Your task to perform on an android device: check storage Image 0: 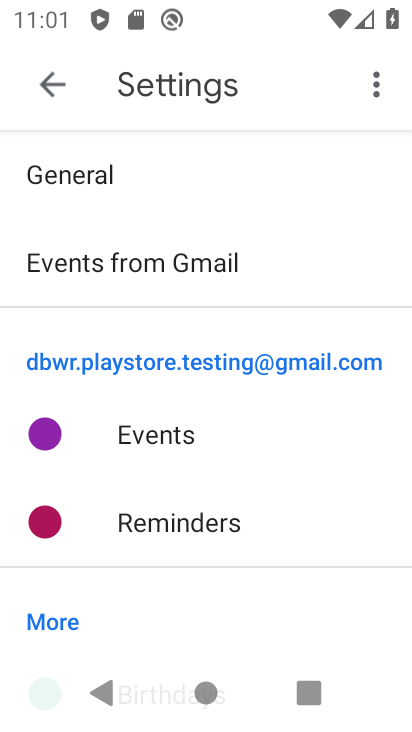
Step 0: press home button
Your task to perform on an android device: check storage Image 1: 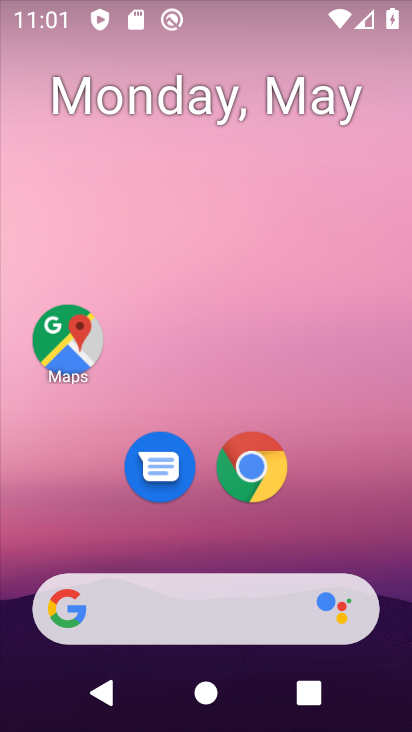
Step 1: drag from (318, 519) to (241, 63)
Your task to perform on an android device: check storage Image 2: 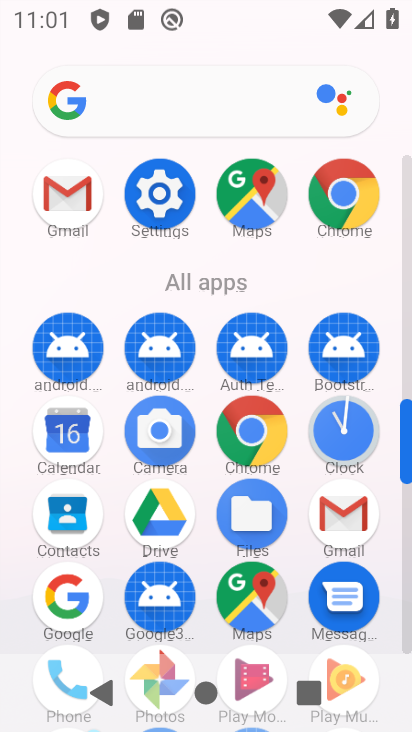
Step 2: click (185, 225)
Your task to perform on an android device: check storage Image 3: 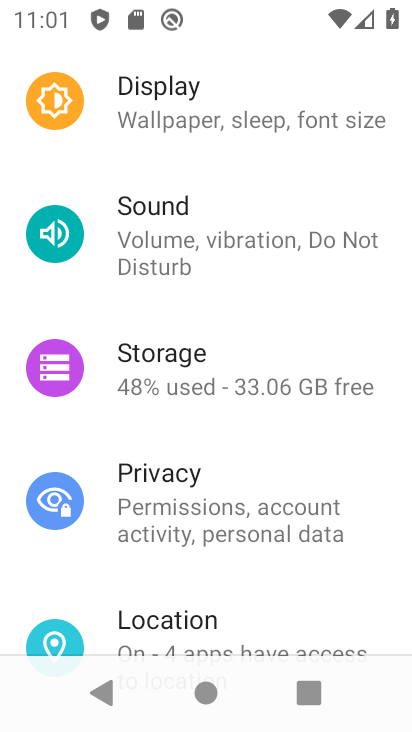
Step 3: click (212, 399)
Your task to perform on an android device: check storage Image 4: 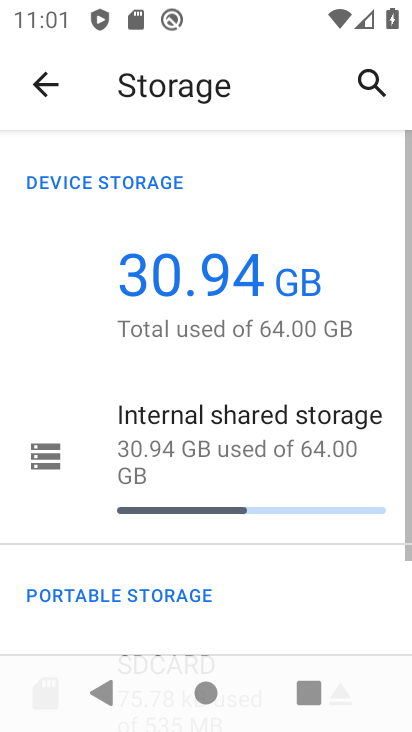
Step 4: task complete